Your task to perform on an android device: Search for seafood restaurants on Google Maps Image 0: 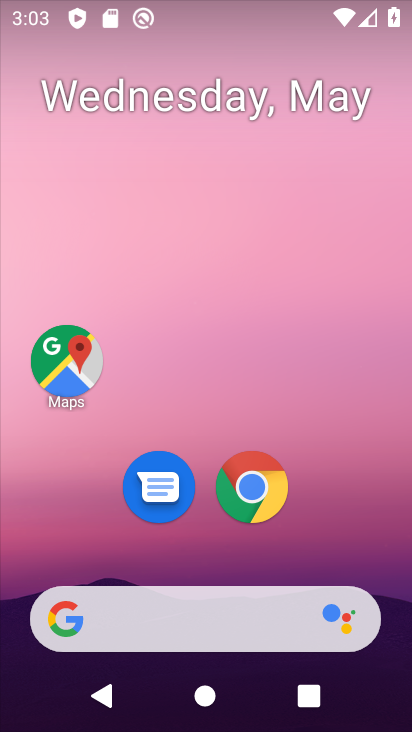
Step 0: drag from (351, 523) to (259, 43)
Your task to perform on an android device: Search for seafood restaurants on Google Maps Image 1: 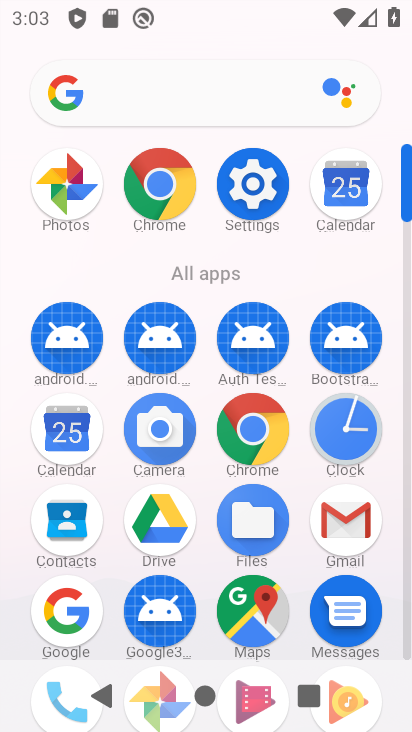
Step 1: drag from (1, 564) to (30, 240)
Your task to perform on an android device: Search for seafood restaurants on Google Maps Image 2: 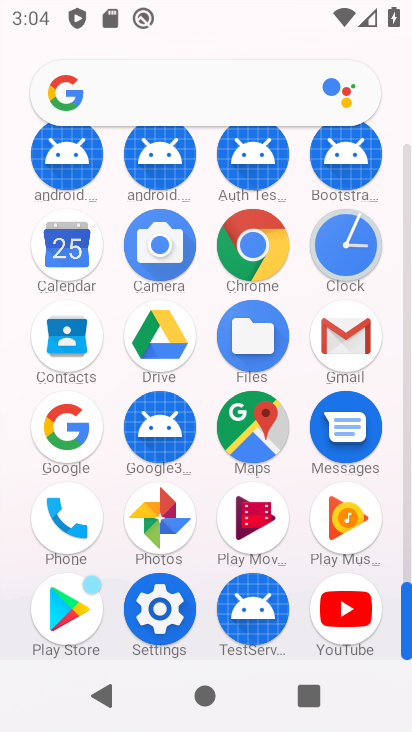
Step 2: click (245, 425)
Your task to perform on an android device: Search for seafood restaurants on Google Maps Image 3: 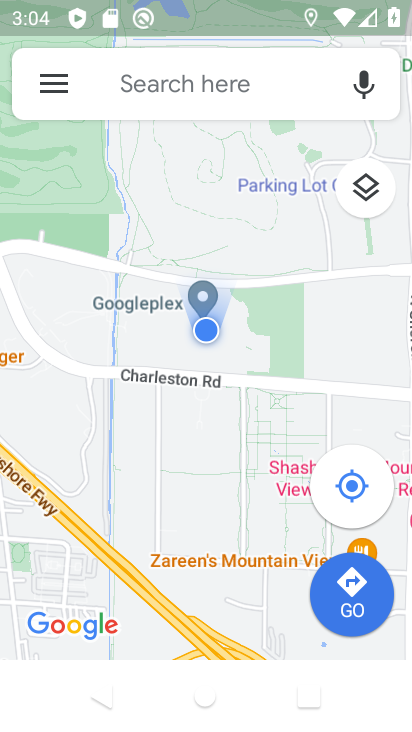
Step 3: click (266, 81)
Your task to perform on an android device: Search for seafood restaurants on Google Maps Image 4: 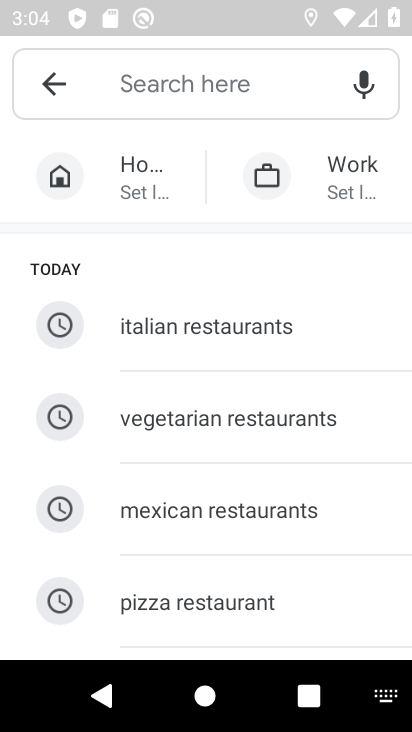
Step 4: type "seafood restaurants"
Your task to perform on an android device: Search for seafood restaurants on Google Maps Image 5: 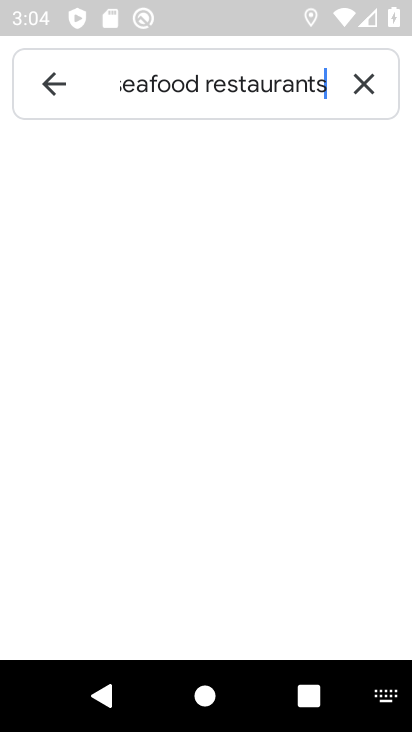
Step 5: type ""
Your task to perform on an android device: Search for seafood restaurants on Google Maps Image 6: 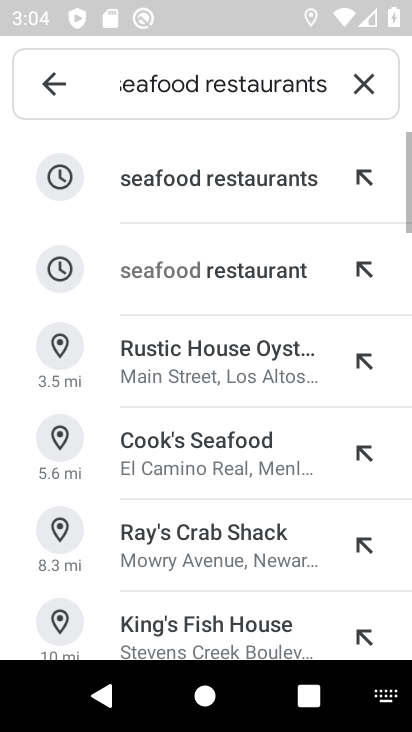
Step 6: click (207, 177)
Your task to perform on an android device: Search for seafood restaurants on Google Maps Image 7: 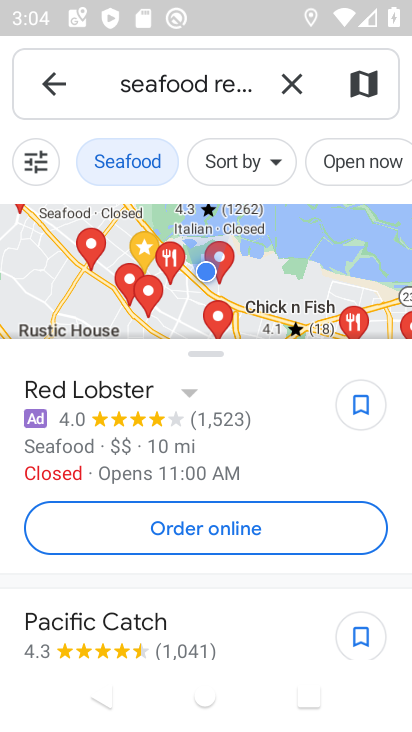
Step 7: task complete